Your task to perform on an android device: Open ESPN.com Image 0: 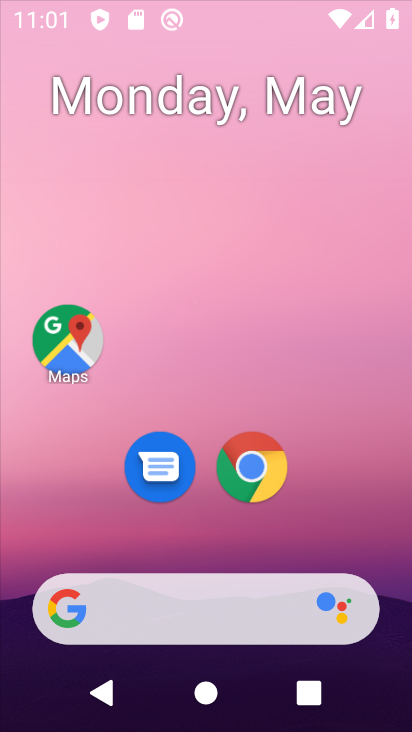
Step 0: drag from (337, 533) to (381, 252)
Your task to perform on an android device: Open ESPN.com Image 1: 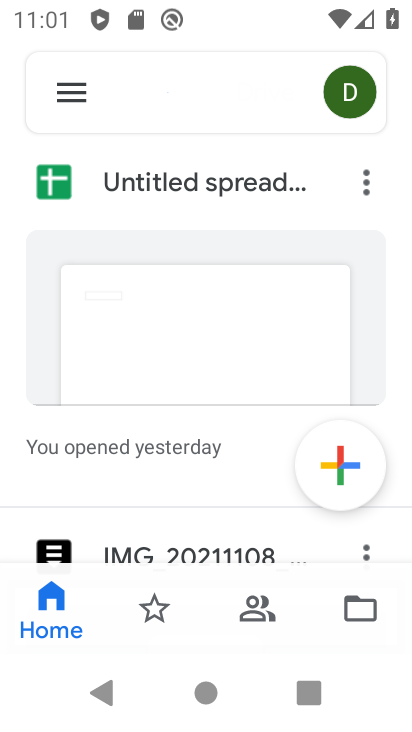
Step 1: press home button
Your task to perform on an android device: Open ESPN.com Image 2: 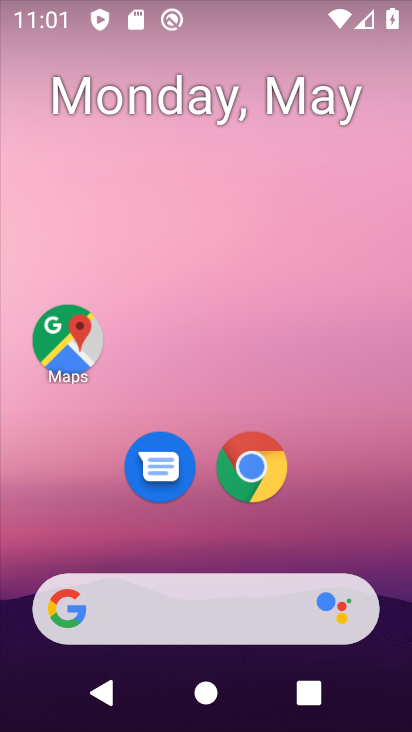
Step 2: click (240, 487)
Your task to perform on an android device: Open ESPN.com Image 3: 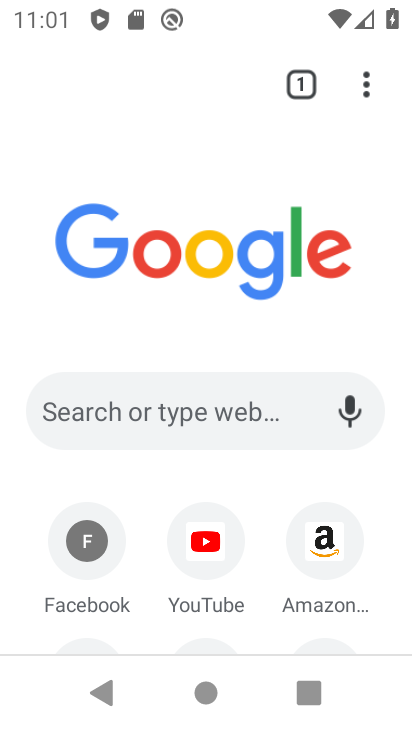
Step 3: drag from (215, 445) to (203, 221)
Your task to perform on an android device: Open ESPN.com Image 4: 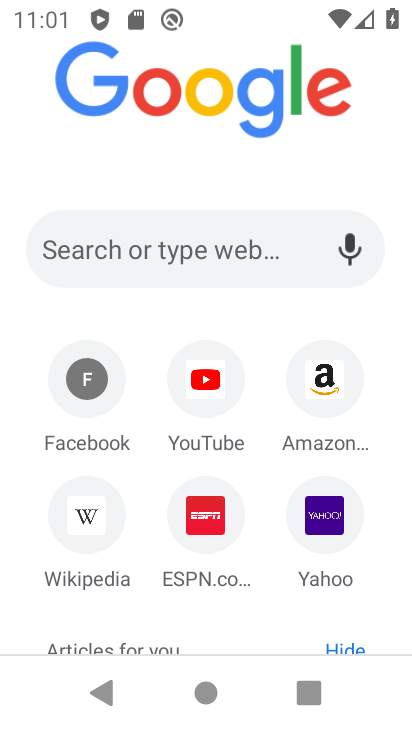
Step 4: click (209, 529)
Your task to perform on an android device: Open ESPN.com Image 5: 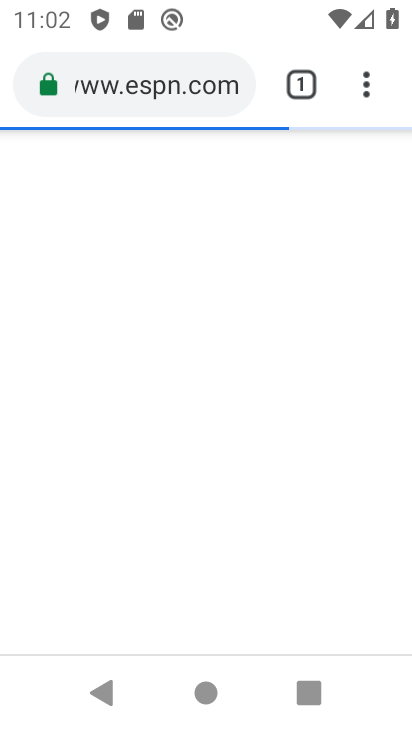
Step 5: task complete